Your task to perform on an android device: turn off priority inbox in the gmail app Image 0: 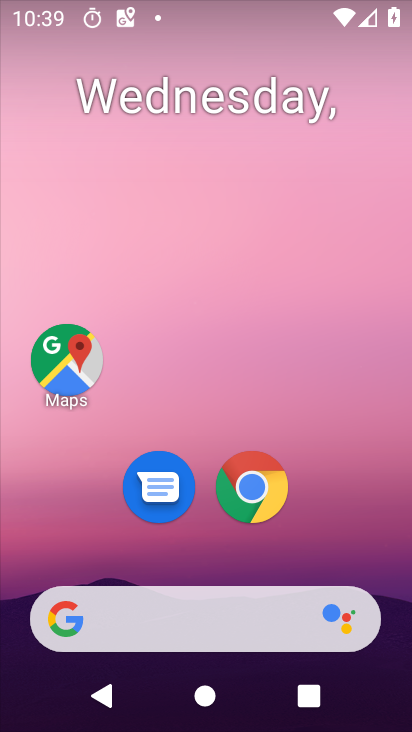
Step 0: drag from (182, 469) to (167, 113)
Your task to perform on an android device: turn off priority inbox in the gmail app Image 1: 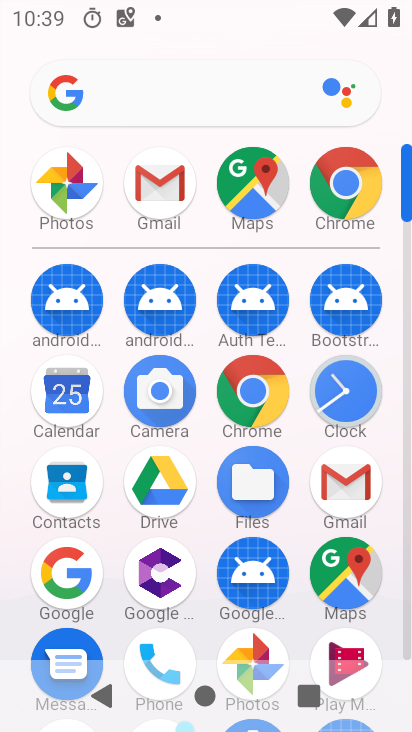
Step 1: click (350, 473)
Your task to perform on an android device: turn off priority inbox in the gmail app Image 2: 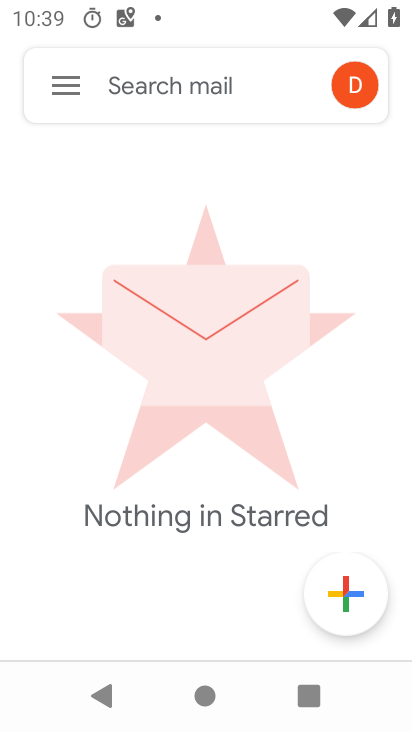
Step 2: click (59, 65)
Your task to perform on an android device: turn off priority inbox in the gmail app Image 3: 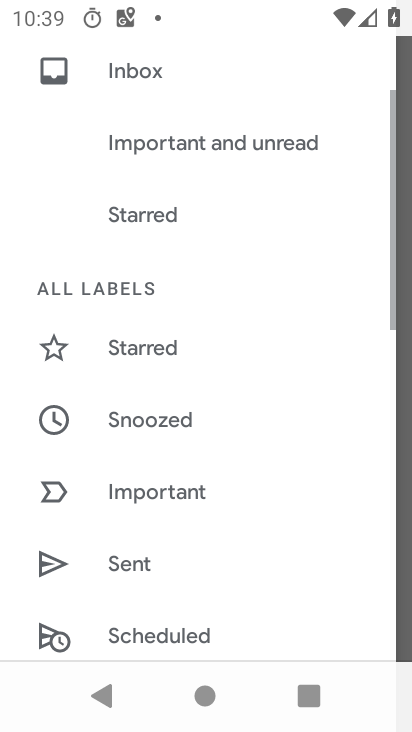
Step 3: drag from (160, 617) to (179, 97)
Your task to perform on an android device: turn off priority inbox in the gmail app Image 4: 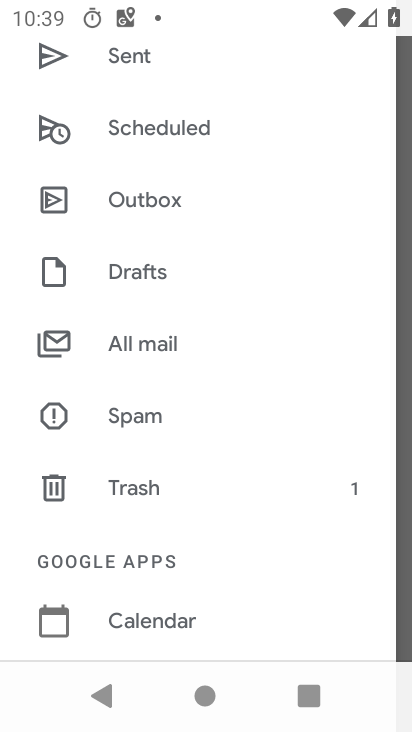
Step 4: drag from (196, 600) to (223, 169)
Your task to perform on an android device: turn off priority inbox in the gmail app Image 5: 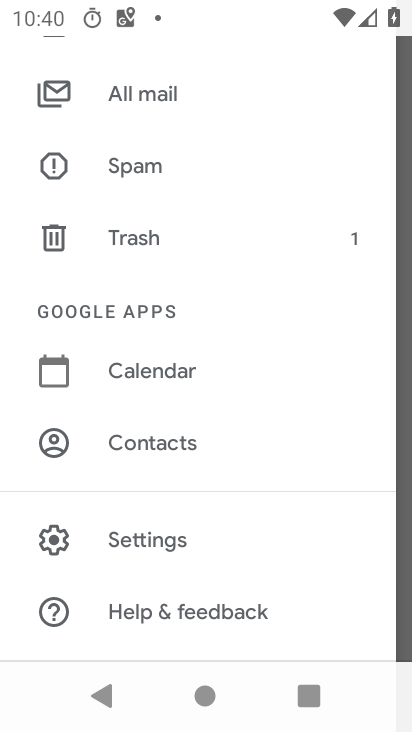
Step 5: click (203, 552)
Your task to perform on an android device: turn off priority inbox in the gmail app Image 6: 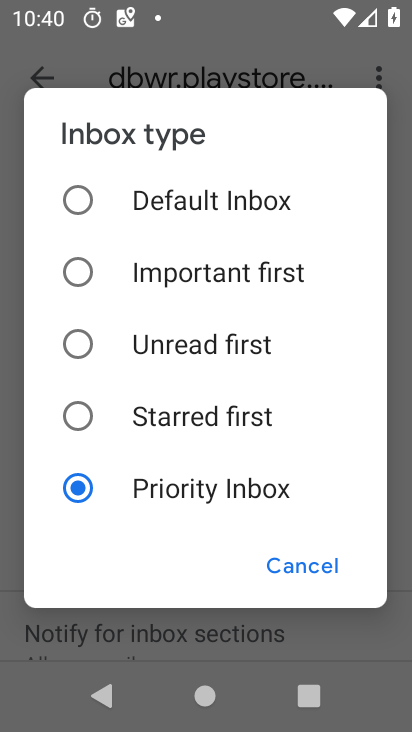
Step 6: click (72, 181)
Your task to perform on an android device: turn off priority inbox in the gmail app Image 7: 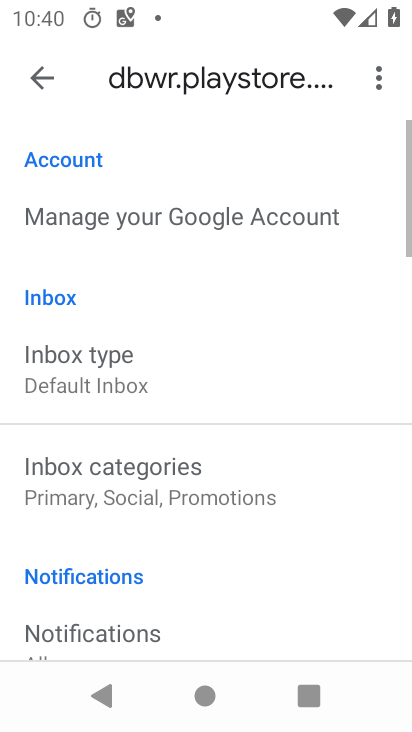
Step 7: task complete